Your task to perform on an android device: turn on javascript in the chrome app Image 0: 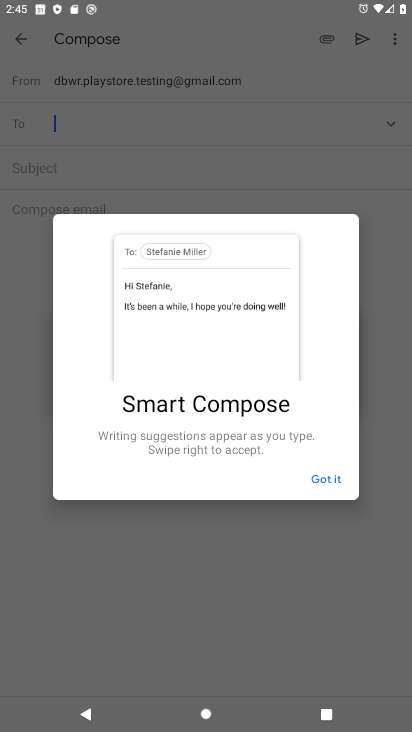
Step 0: press home button
Your task to perform on an android device: turn on javascript in the chrome app Image 1: 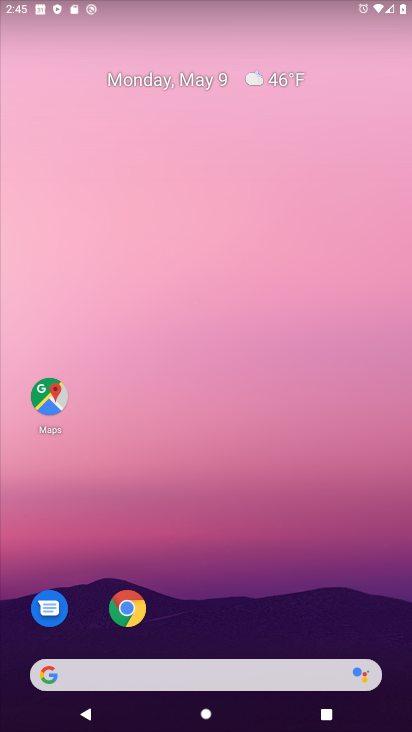
Step 1: drag from (146, 652) to (286, 216)
Your task to perform on an android device: turn on javascript in the chrome app Image 2: 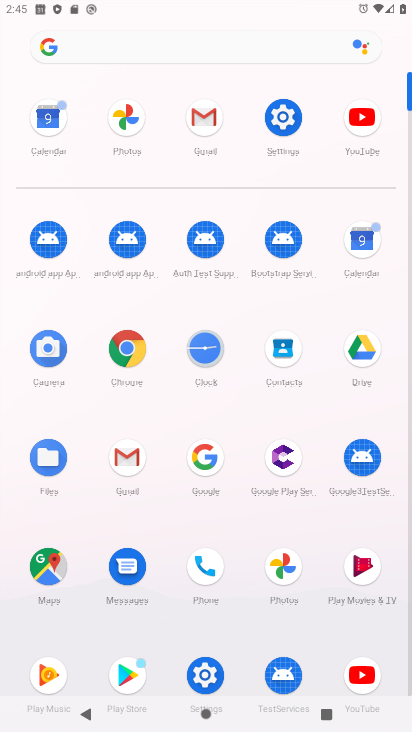
Step 2: click (124, 357)
Your task to perform on an android device: turn on javascript in the chrome app Image 3: 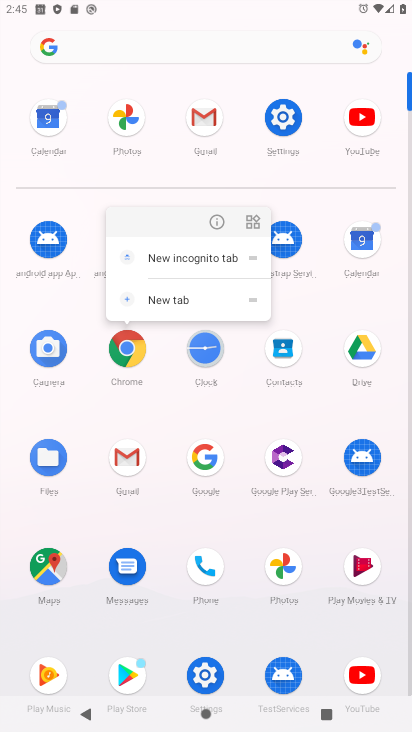
Step 3: click (121, 350)
Your task to perform on an android device: turn on javascript in the chrome app Image 4: 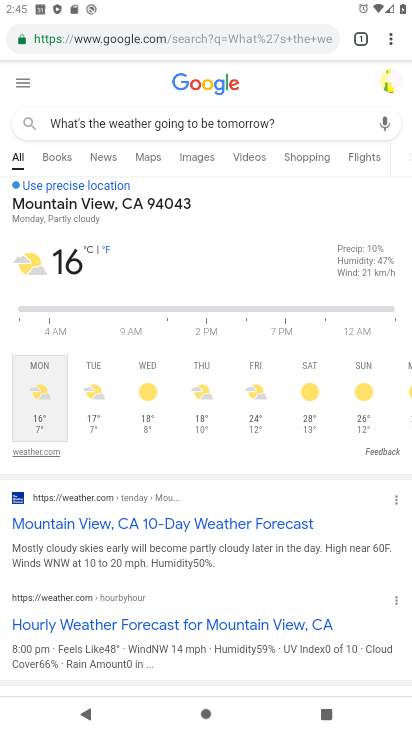
Step 4: click (388, 37)
Your task to perform on an android device: turn on javascript in the chrome app Image 5: 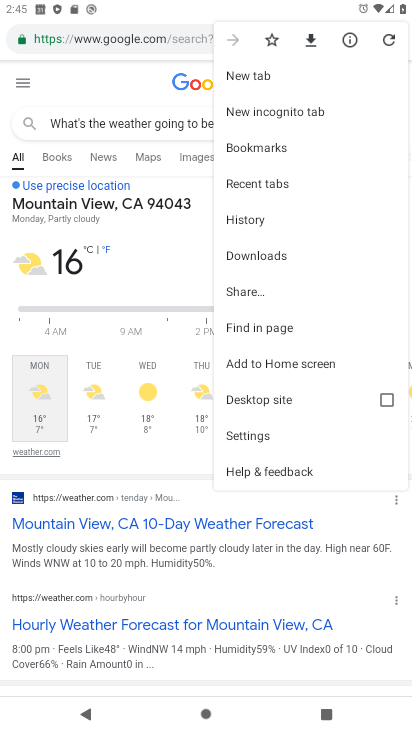
Step 5: click (263, 431)
Your task to perform on an android device: turn on javascript in the chrome app Image 6: 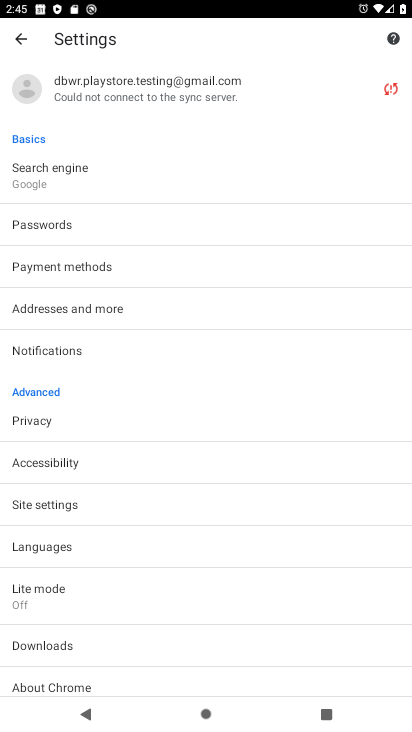
Step 6: click (74, 508)
Your task to perform on an android device: turn on javascript in the chrome app Image 7: 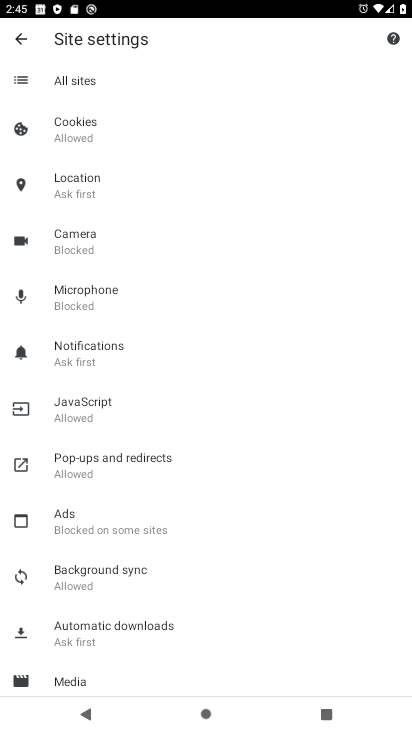
Step 7: click (99, 413)
Your task to perform on an android device: turn on javascript in the chrome app Image 8: 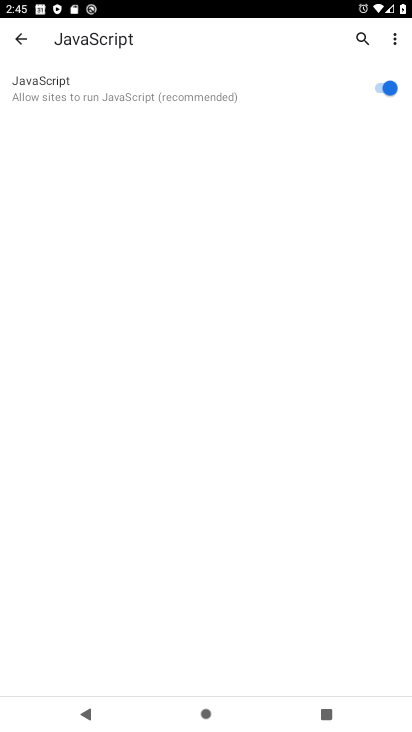
Step 8: task complete